Your task to perform on an android device: toggle translation in the chrome app Image 0: 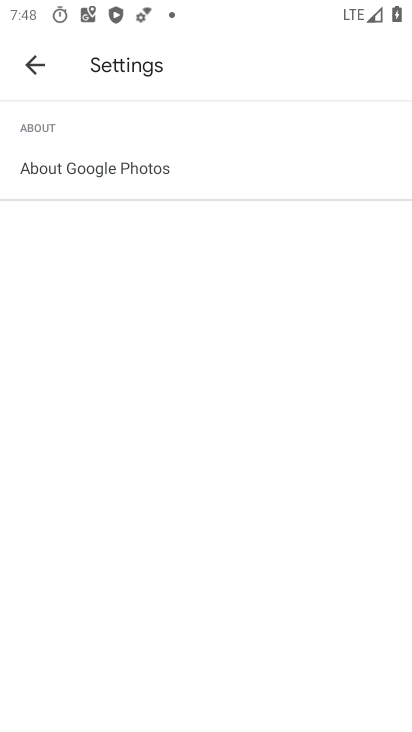
Step 0: press home button
Your task to perform on an android device: toggle translation in the chrome app Image 1: 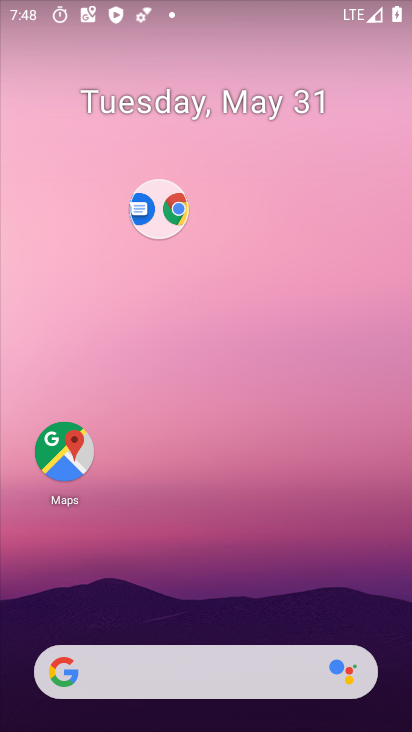
Step 1: drag from (205, 616) to (214, 248)
Your task to perform on an android device: toggle translation in the chrome app Image 2: 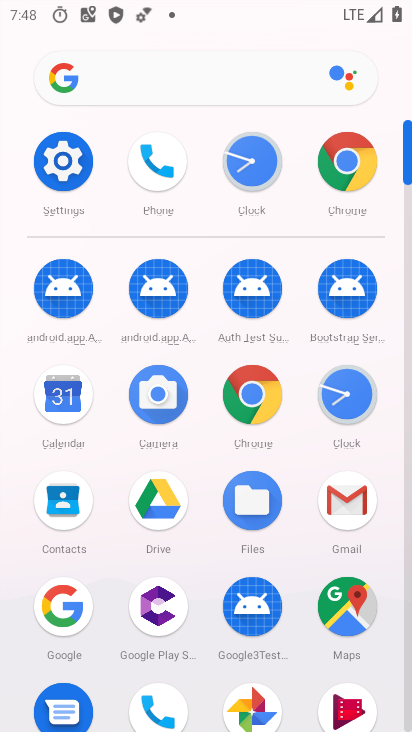
Step 2: click (346, 174)
Your task to perform on an android device: toggle translation in the chrome app Image 3: 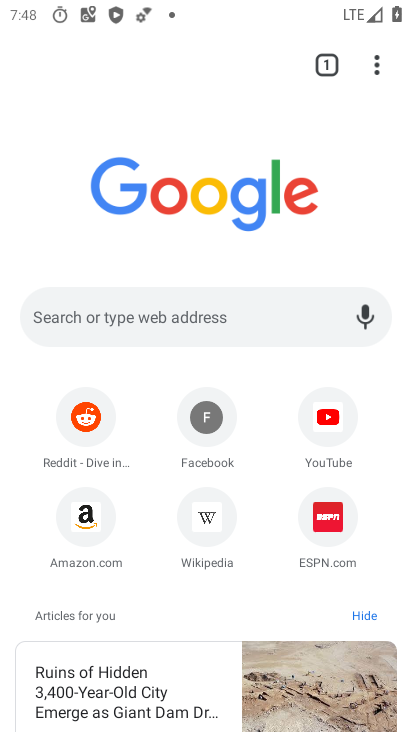
Step 3: click (379, 73)
Your task to perform on an android device: toggle translation in the chrome app Image 4: 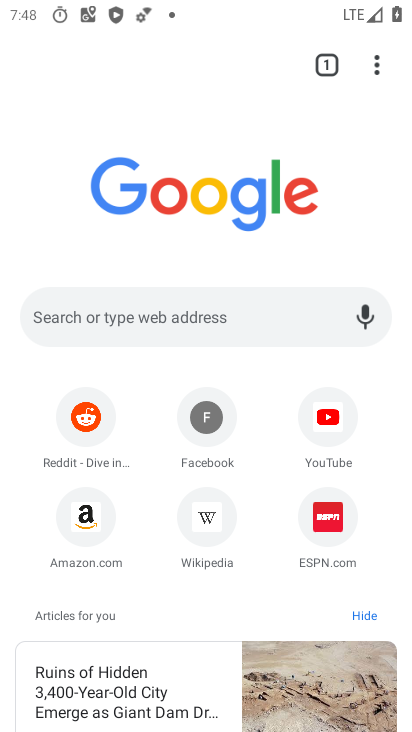
Step 4: click (371, 68)
Your task to perform on an android device: toggle translation in the chrome app Image 5: 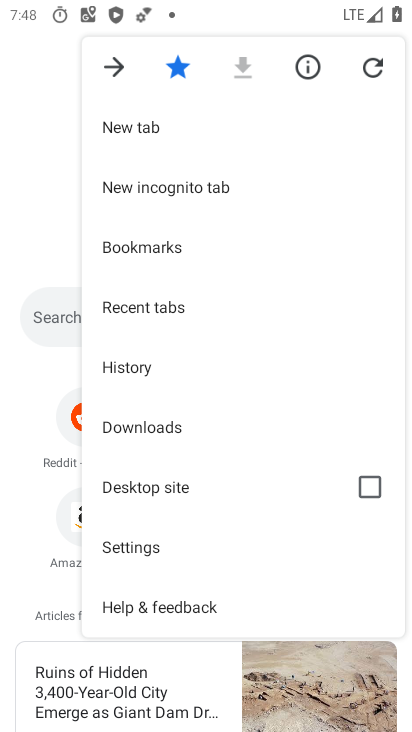
Step 5: click (140, 554)
Your task to perform on an android device: toggle translation in the chrome app Image 6: 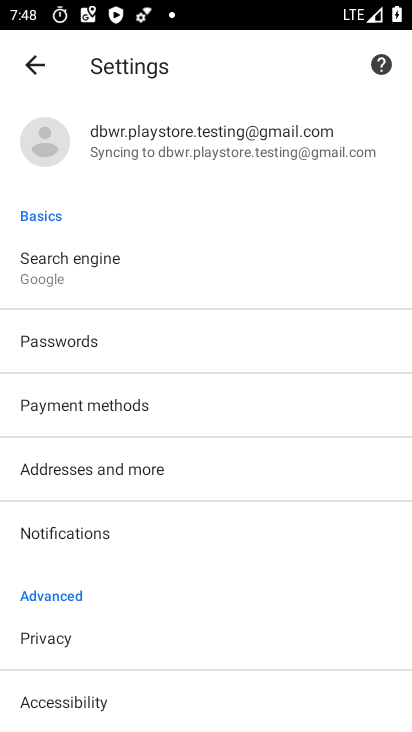
Step 6: drag from (130, 616) to (111, 103)
Your task to perform on an android device: toggle translation in the chrome app Image 7: 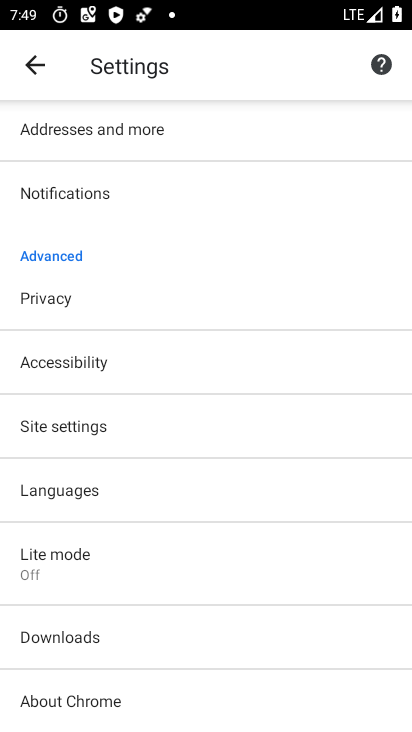
Step 7: click (91, 495)
Your task to perform on an android device: toggle translation in the chrome app Image 8: 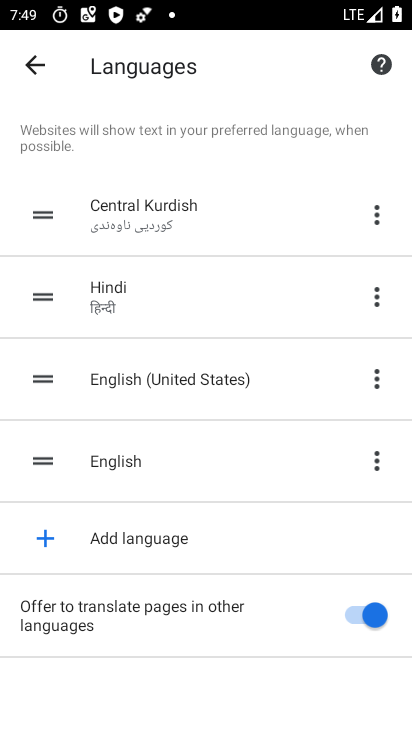
Step 8: click (360, 621)
Your task to perform on an android device: toggle translation in the chrome app Image 9: 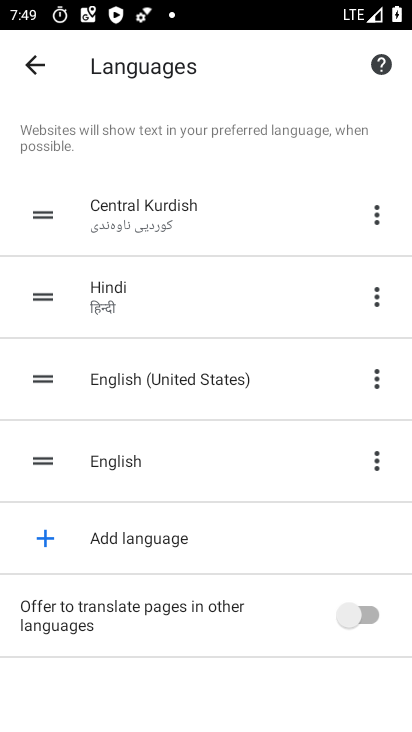
Step 9: task complete